Your task to perform on an android device: turn off javascript in the chrome app Image 0: 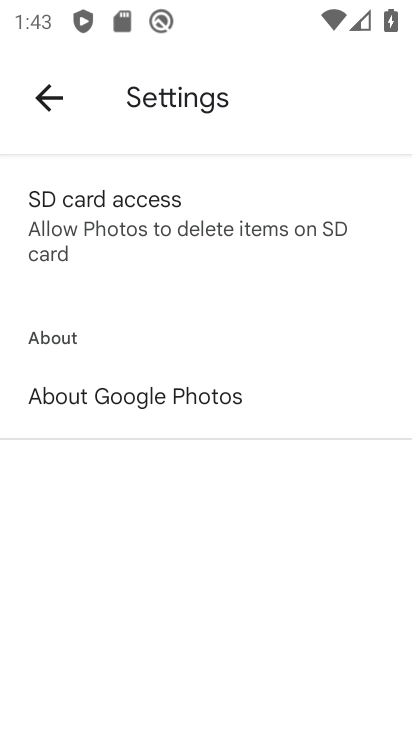
Step 0: press home button
Your task to perform on an android device: turn off javascript in the chrome app Image 1: 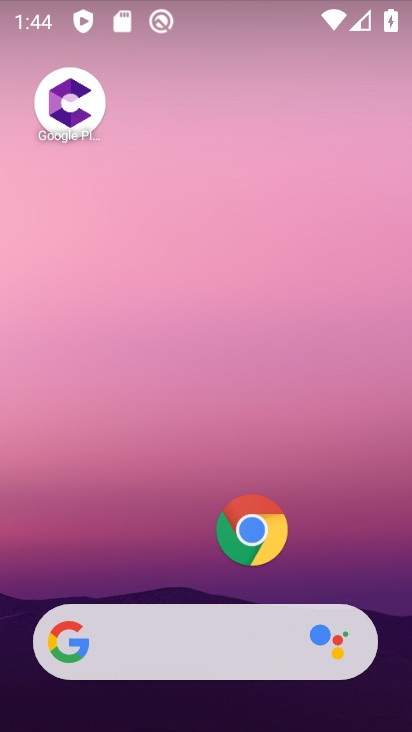
Step 1: click (256, 545)
Your task to perform on an android device: turn off javascript in the chrome app Image 2: 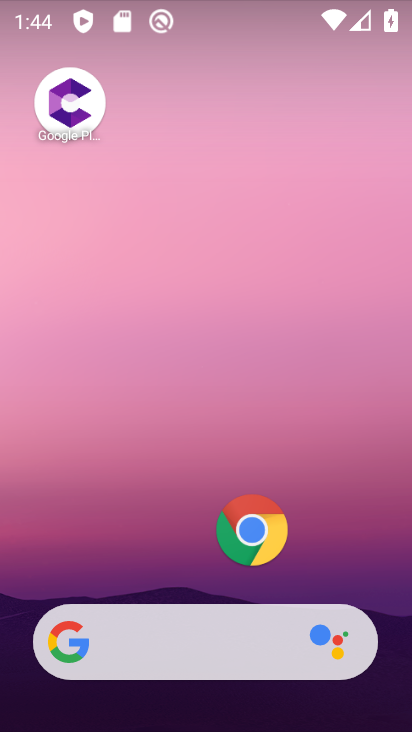
Step 2: drag from (133, 648) to (176, 135)
Your task to perform on an android device: turn off javascript in the chrome app Image 3: 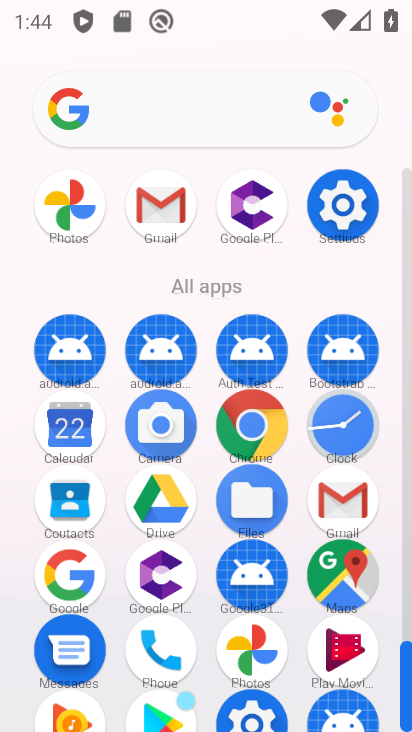
Step 3: click (230, 425)
Your task to perform on an android device: turn off javascript in the chrome app Image 4: 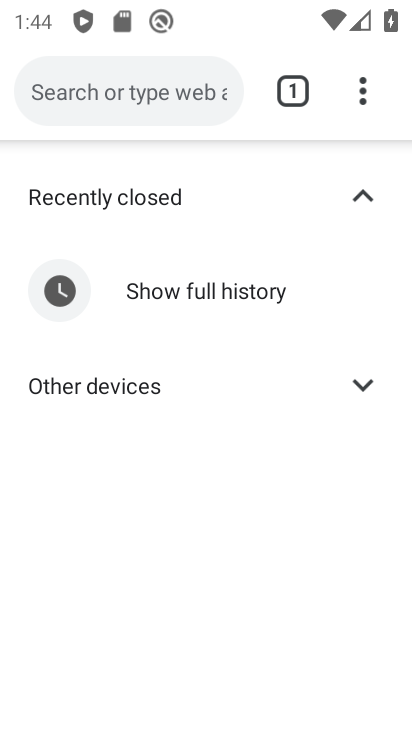
Step 4: drag from (363, 91) to (126, 551)
Your task to perform on an android device: turn off javascript in the chrome app Image 5: 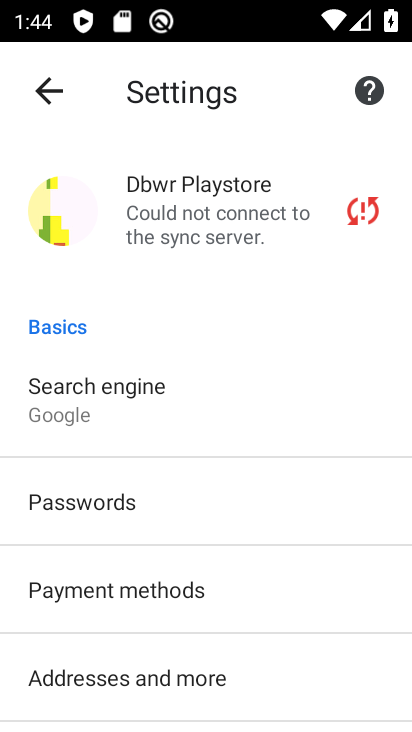
Step 5: drag from (225, 637) to (212, 377)
Your task to perform on an android device: turn off javascript in the chrome app Image 6: 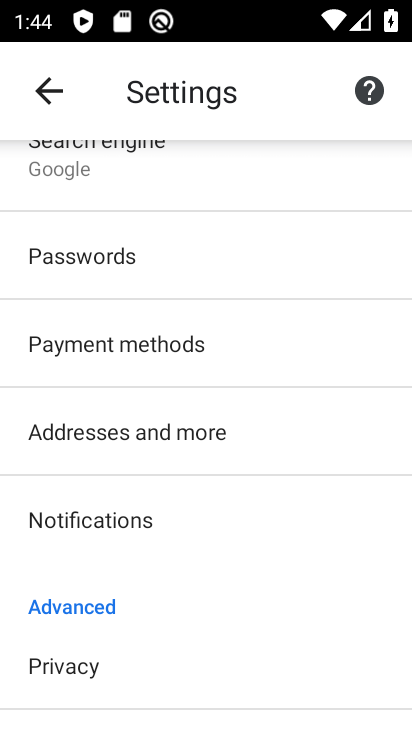
Step 6: drag from (153, 683) to (124, 442)
Your task to perform on an android device: turn off javascript in the chrome app Image 7: 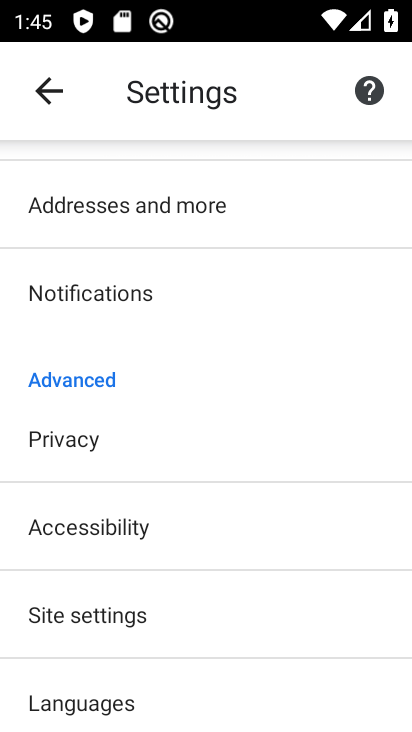
Step 7: click (128, 632)
Your task to perform on an android device: turn off javascript in the chrome app Image 8: 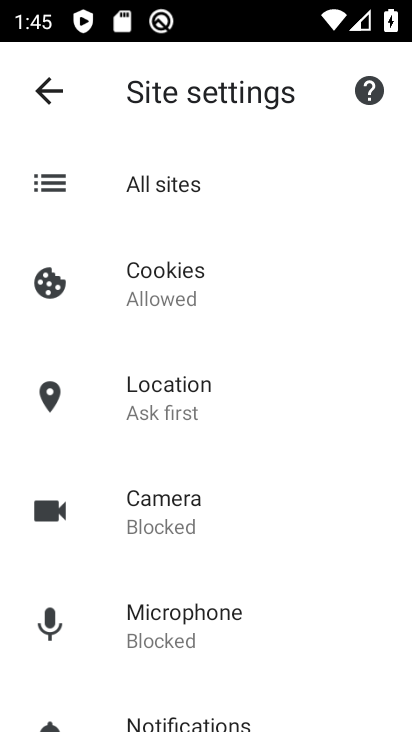
Step 8: drag from (342, 630) to (301, 216)
Your task to perform on an android device: turn off javascript in the chrome app Image 9: 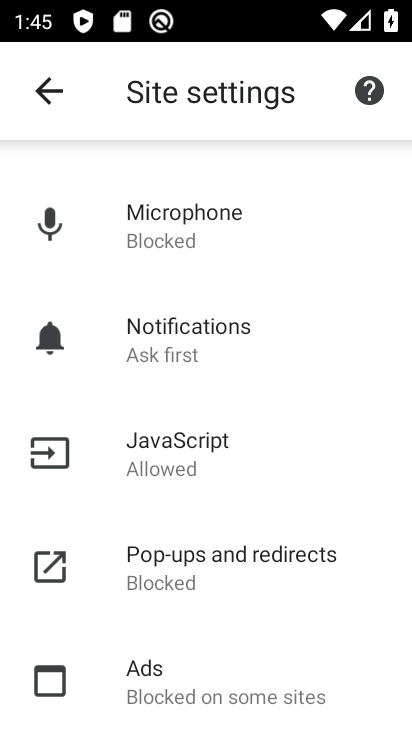
Step 9: click (208, 436)
Your task to perform on an android device: turn off javascript in the chrome app Image 10: 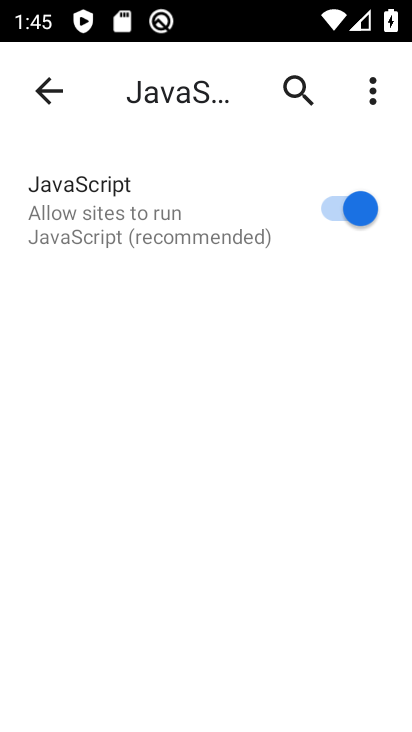
Step 10: click (350, 211)
Your task to perform on an android device: turn off javascript in the chrome app Image 11: 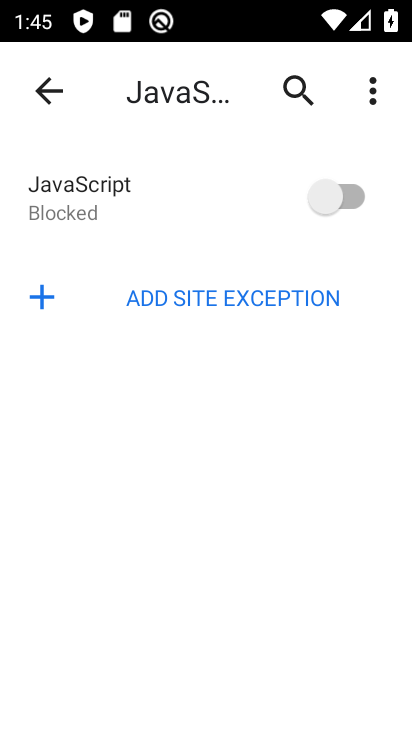
Step 11: task complete